Your task to perform on an android device: What's on my calendar tomorrow? Image 0: 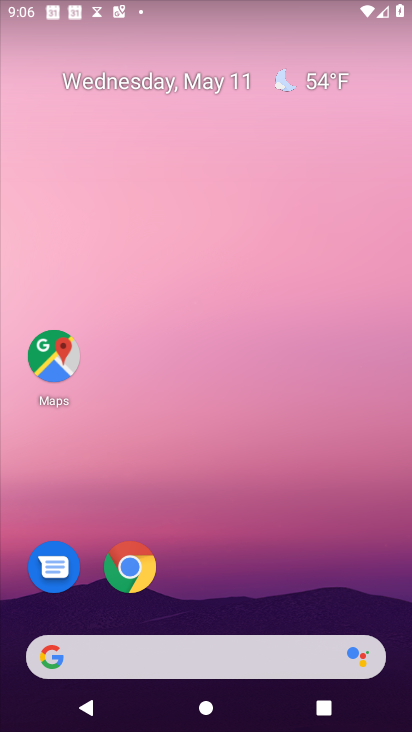
Step 0: drag from (215, 613) to (314, 0)
Your task to perform on an android device: What's on my calendar tomorrow? Image 1: 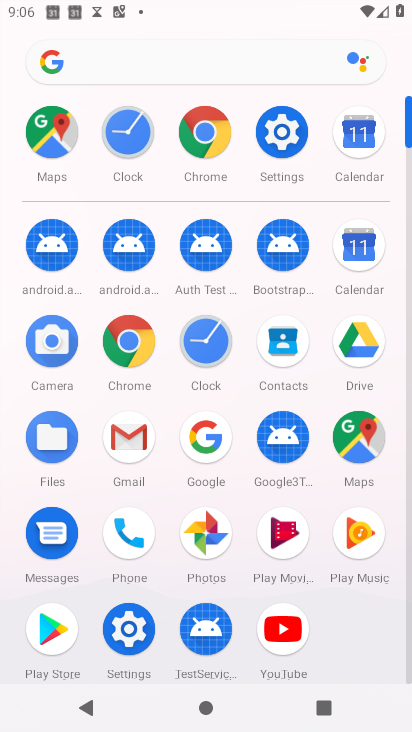
Step 1: click (369, 250)
Your task to perform on an android device: What's on my calendar tomorrow? Image 2: 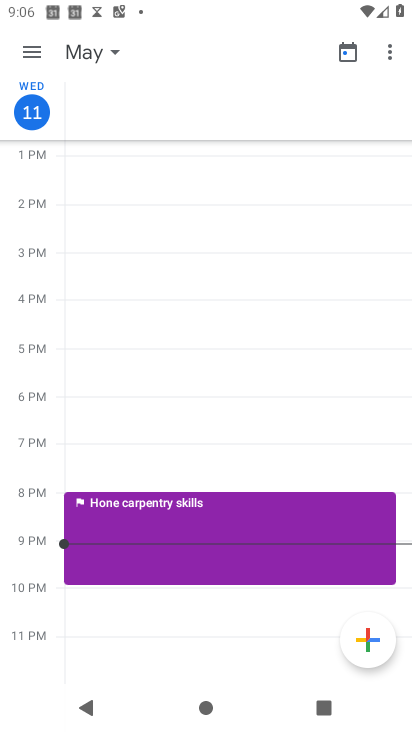
Step 2: click (29, 50)
Your task to perform on an android device: What's on my calendar tomorrow? Image 3: 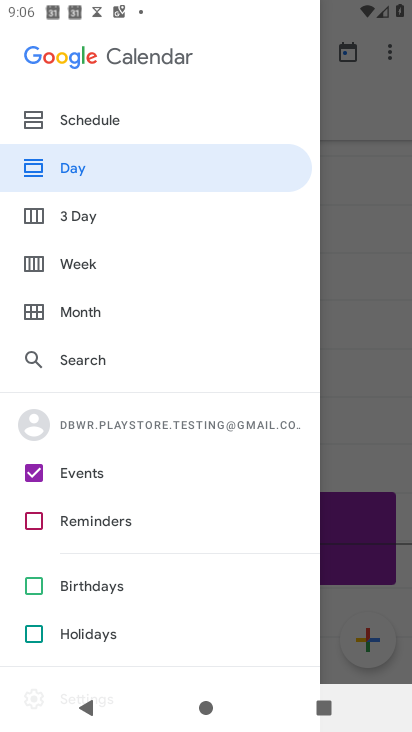
Step 3: click (105, 216)
Your task to perform on an android device: What's on my calendar tomorrow? Image 4: 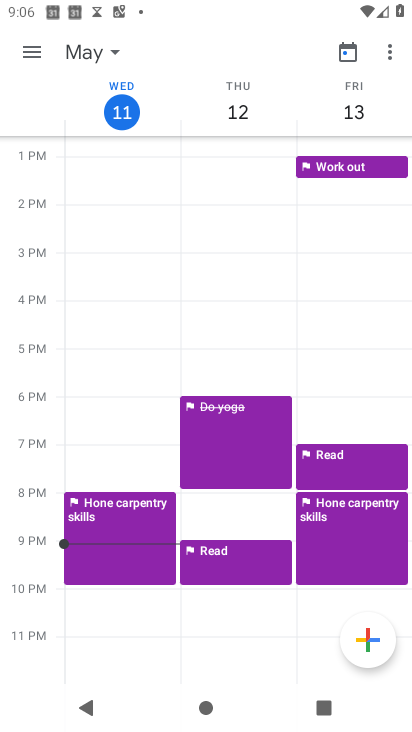
Step 4: task complete